Your task to perform on an android device: Open calendar and show me the third week of next month Image 0: 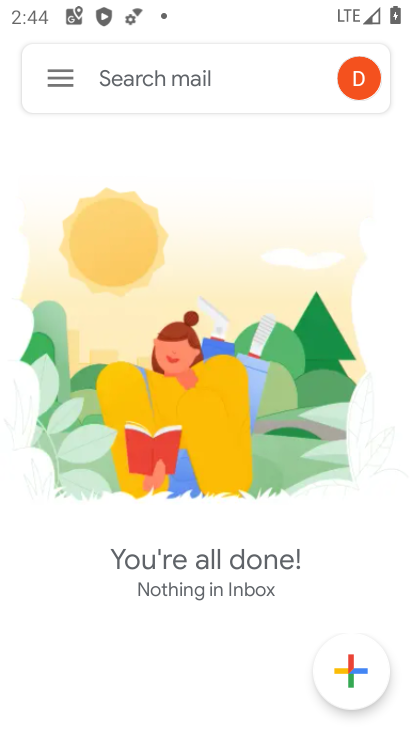
Step 0: press home button
Your task to perform on an android device: Open calendar and show me the third week of next month Image 1: 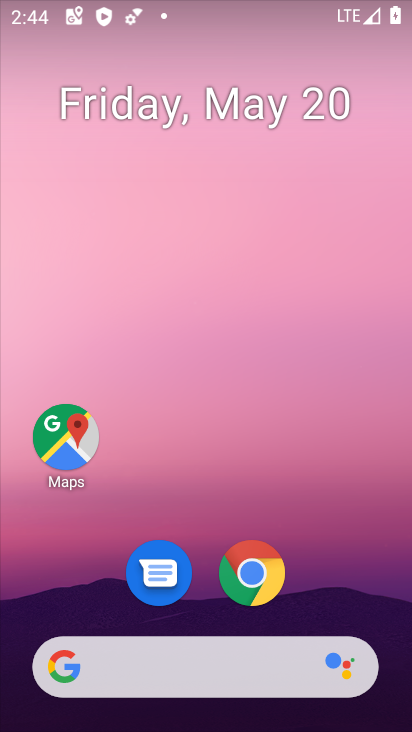
Step 1: drag from (348, 555) to (296, 34)
Your task to perform on an android device: Open calendar and show me the third week of next month Image 2: 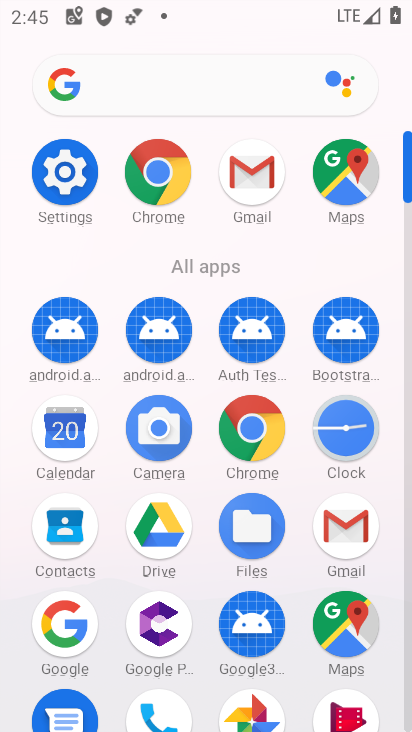
Step 2: click (53, 442)
Your task to perform on an android device: Open calendar and show me the third week of next month Image 3: 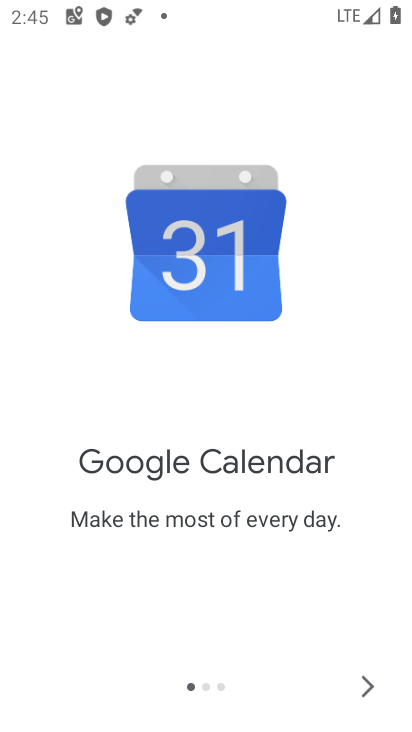
Step 3: click (367, 696)
Your task to perform on an android device: Open calendar and show me the third week of next month Image 4: 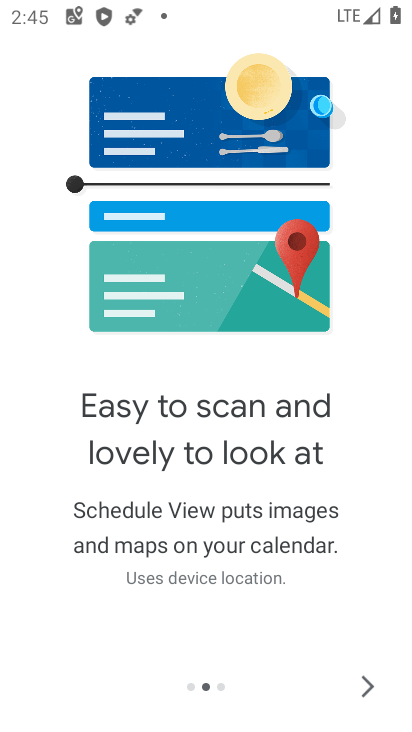
Step 4: click (367, 696)
Your task to perform on an android device: Open calendar and show me the third week of next month Image 5: 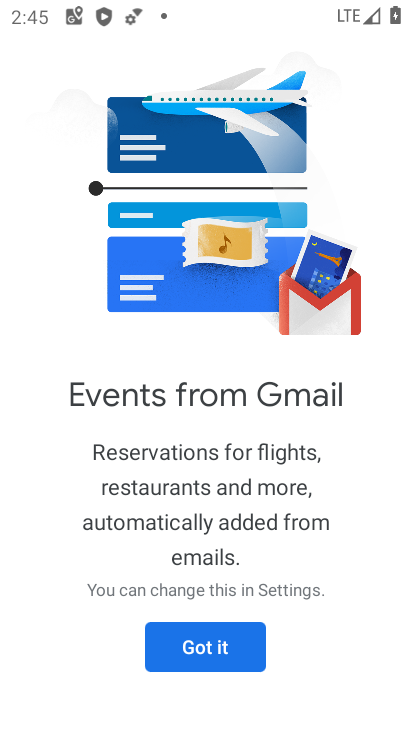
Step 5: click (367, 696)
Your task to perform on an android device: Open calendar and show me the third week of next month Image 6: 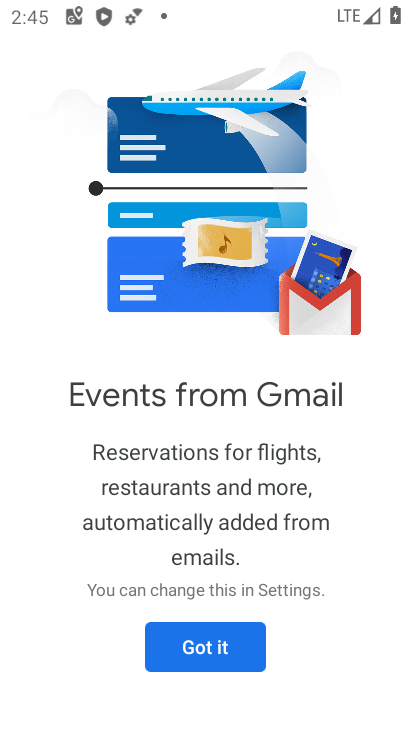
Step 6: click (193, 628)
Your task to perform on an android device: Open calendar and show me the third week of next month Image 7: 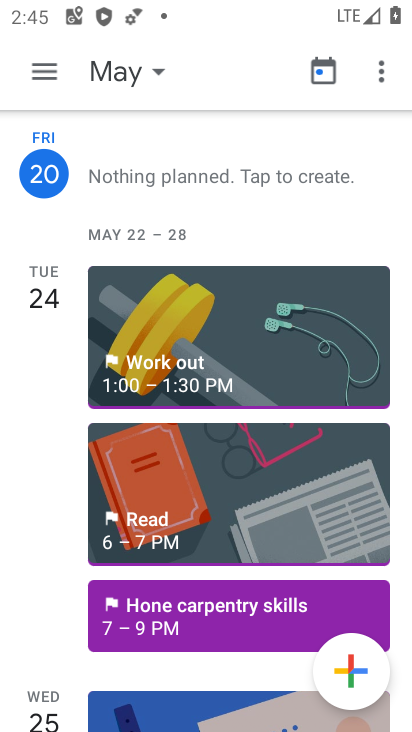
Step 7: click (115, 59)
Your task to perform on an android device: Open calendar and show me the third week of next month Image 8: 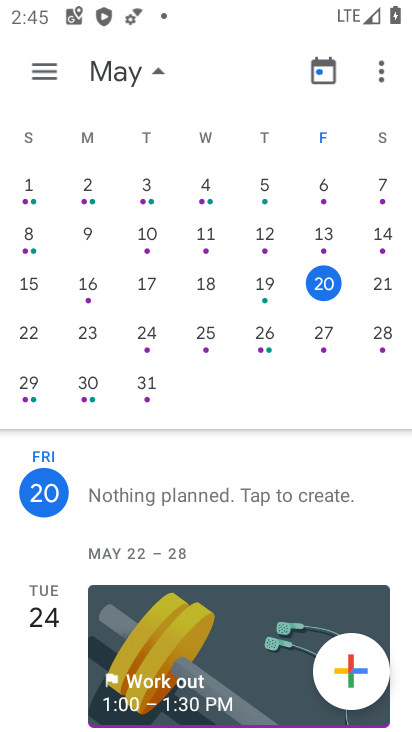
Step 8: click (32, 69)
Your task to perform on an android device: Open calendar and show me the third week of next month Image 9: 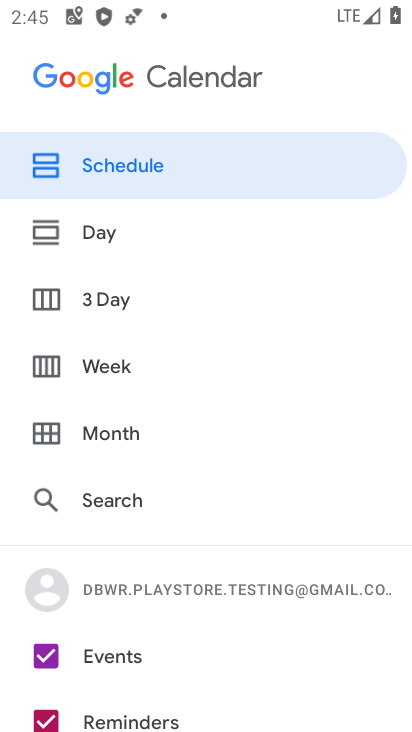
Step 9: click (52, 367)
Your task to perform on an android device: Open calendar and show me the third week of next month Image 10: 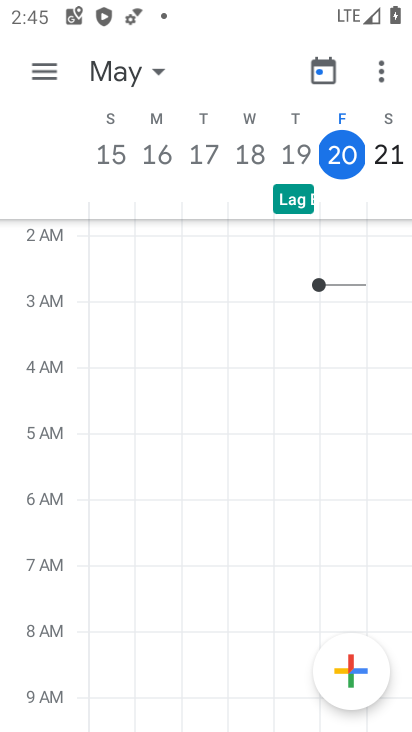
Step 10: click (98, 77)
Your task to perform on an android device: Open calendar and show me the third week of next month Image 11: 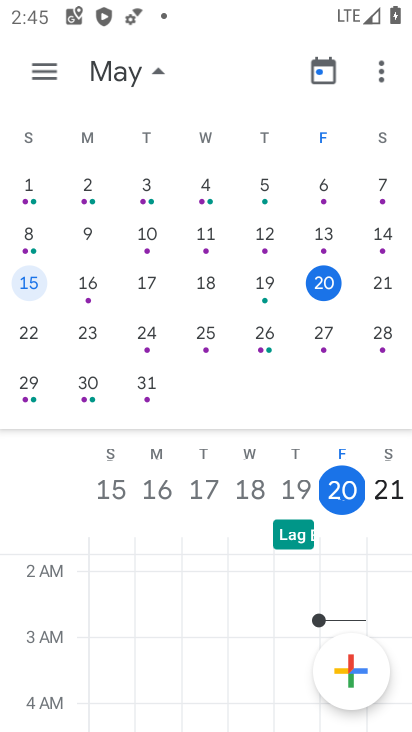
Step 11: drag from (377, 295) to (5, 249)
Your task to perform on an android device: Open calendar and show me the third week of next month Image 12: 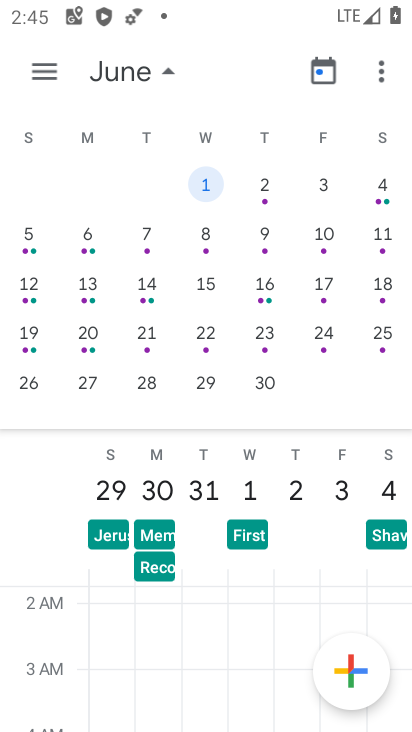
Step 12: click (148, 294)
Your task to perform on an android device: Open calendar and show me the third week of next month Image 13: 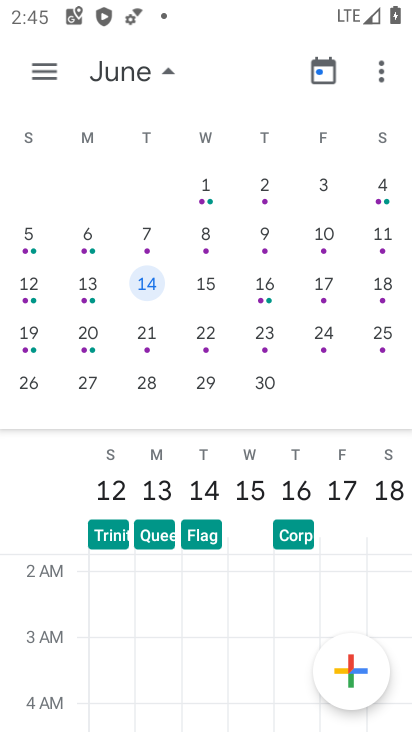
Step 13: task complete